Your task to perform on an android device: turn on location history Image 0: 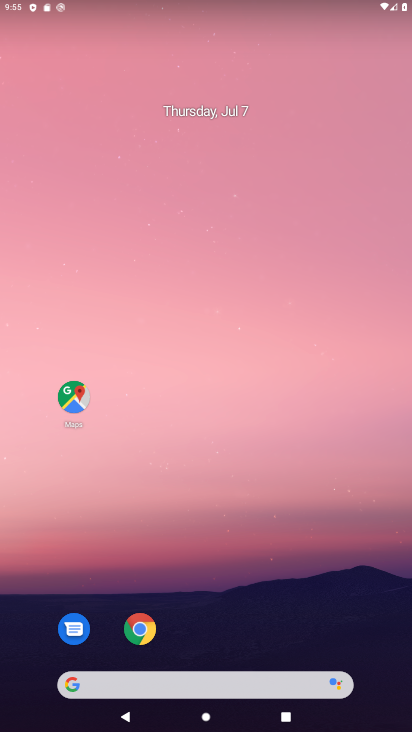
Step 0: press home button
Your task to perform on an android device: turn on location history Image 1: 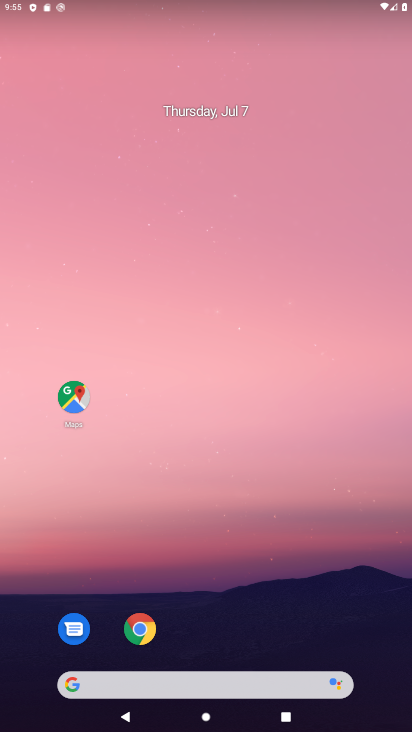
Step 1: drag from (276, 600) to (203, 89)
Your task to perform on an android device: turn on location history Image 2: 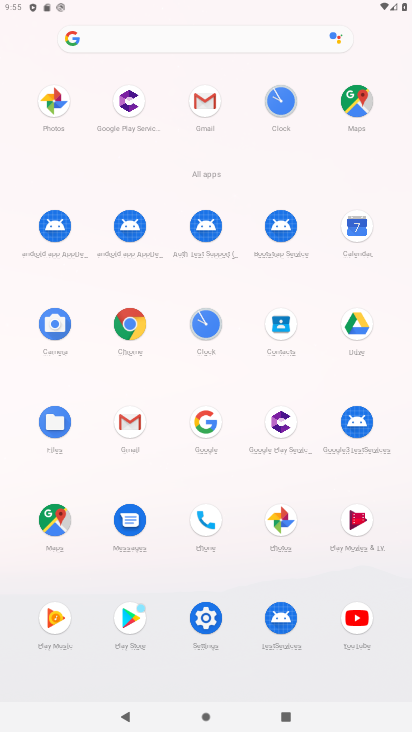
Step 2: click (211, 617)
Your task to perform on an android device: turn on location history Image 3: 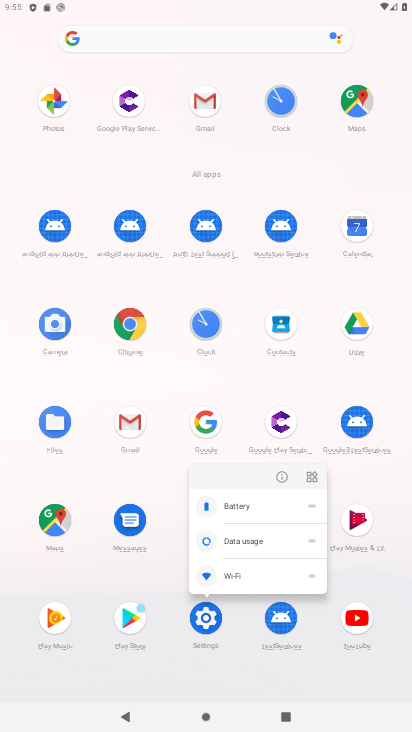
Step 3: click (204, 619)
Your task to perform on an android device: turn on location history Image 4: 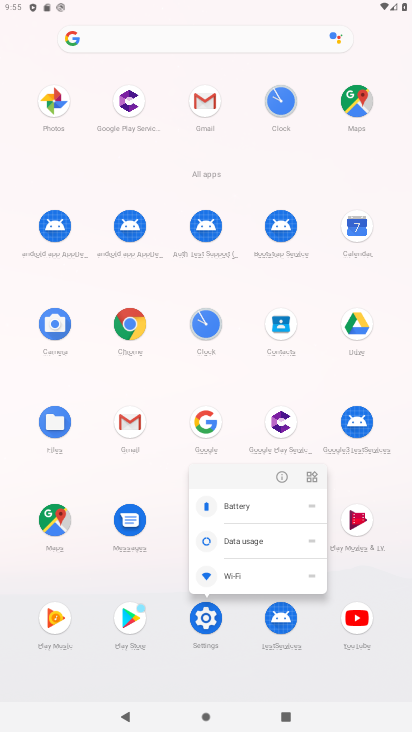
Step 4: click (204, 618)
Your task to perform on an android device: turn on location history Image 5: 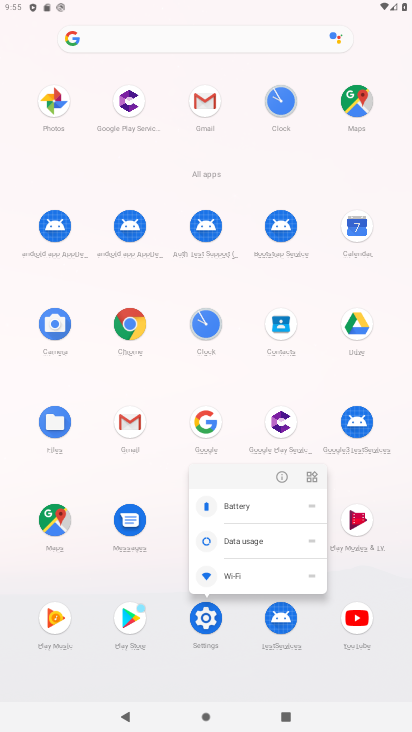
Step 5: click (204, 617)
Your task to perform on an android device: turn on location history Image 6: 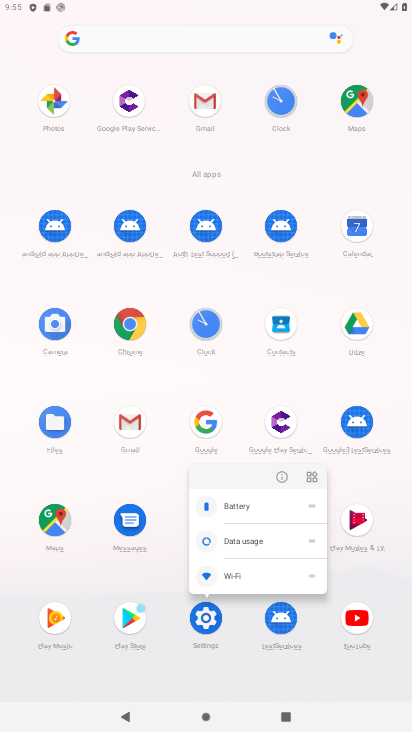
Step 6: click (208, 624)
Your task to perform on an android device: turn on location history Image 7: 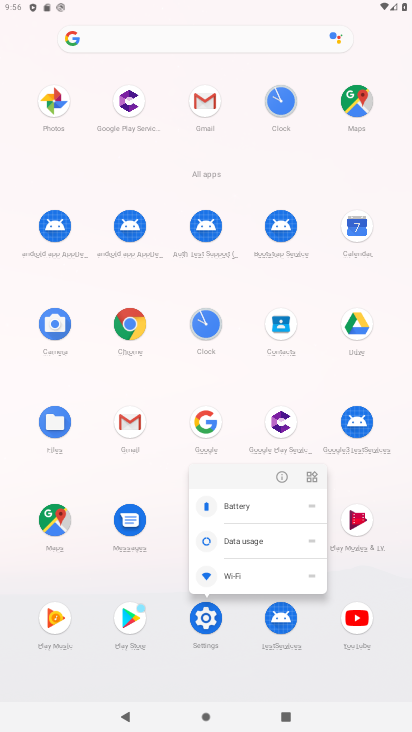
Step 7: click (207, 619)
Your task to perform on an android device: turn on location history Image 8: 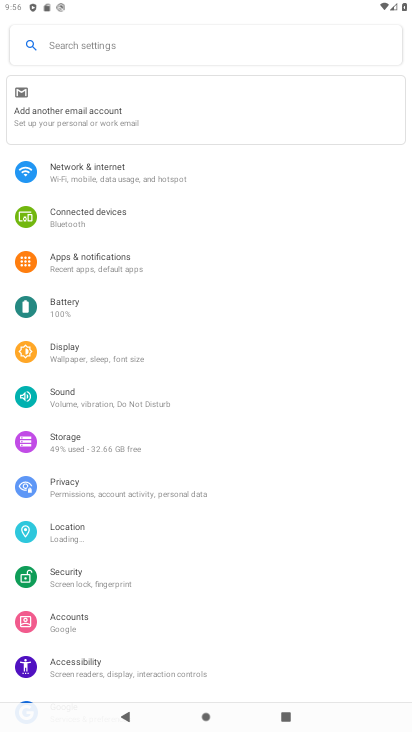
Step 8: click (73, 531)
Your task to perform on an android device: turn on location history Image 9: 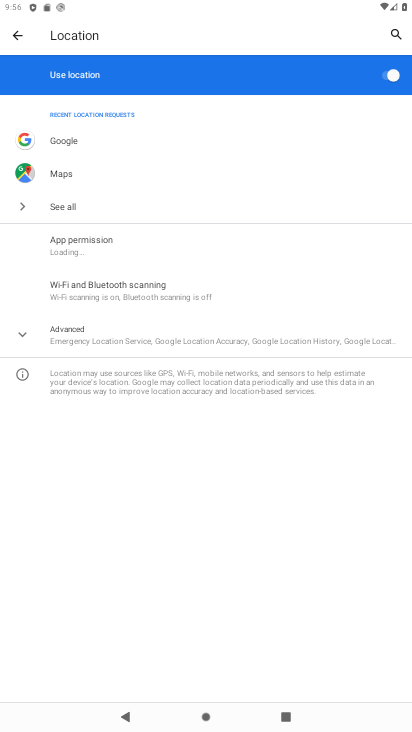
Step 9: click (84, 343)
Your task to perform on an android device: turn on location history Image 10: 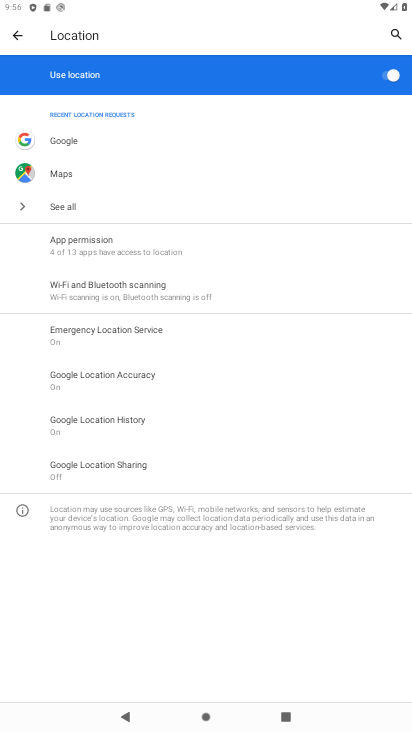
Step 10: click (96, 423)
Your task to perform on an android device: turn on location history Image 11: 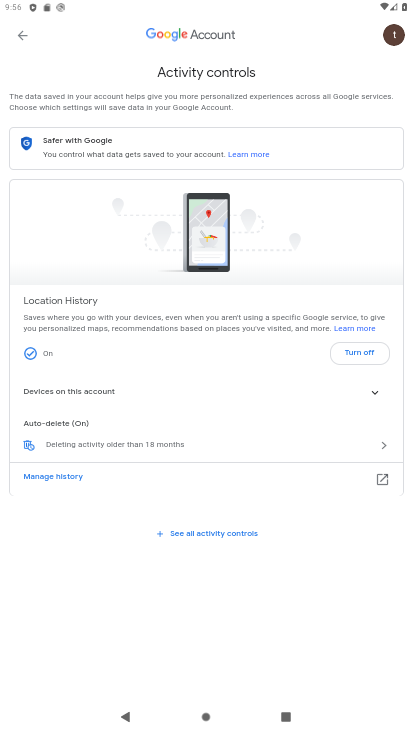
Step 11: task complete